Your task to perform on an android device: uninstall "Nova Launcher" Image 0: 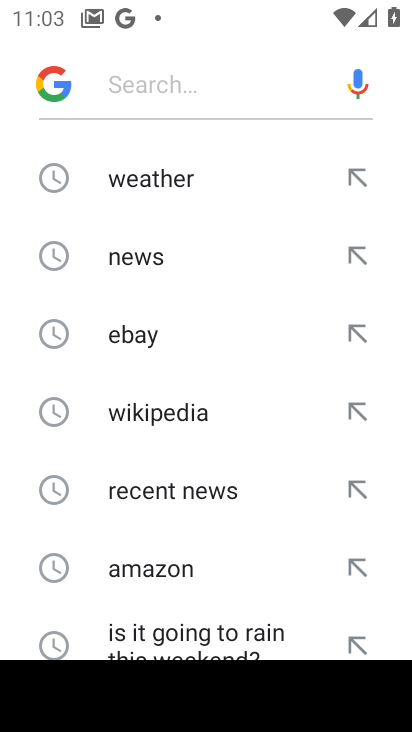
Step 0: press back button
Your task to perform on an android device: uninstall "Nova Launcher" Image 1: 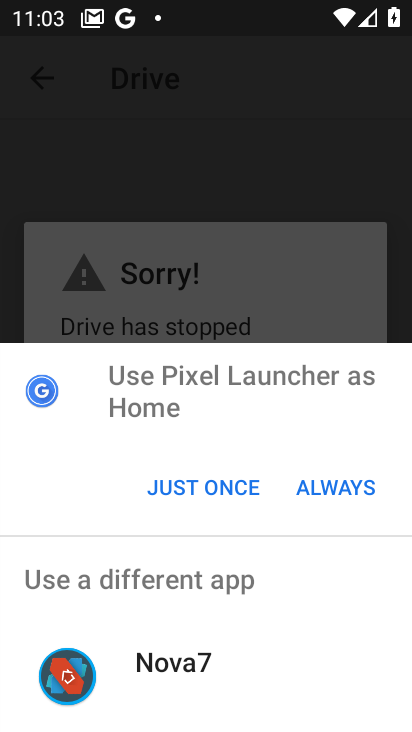
Step 1: click (243, 499)
Your task to perform on an android device: uninstall "Nova Launcher" Image 2: 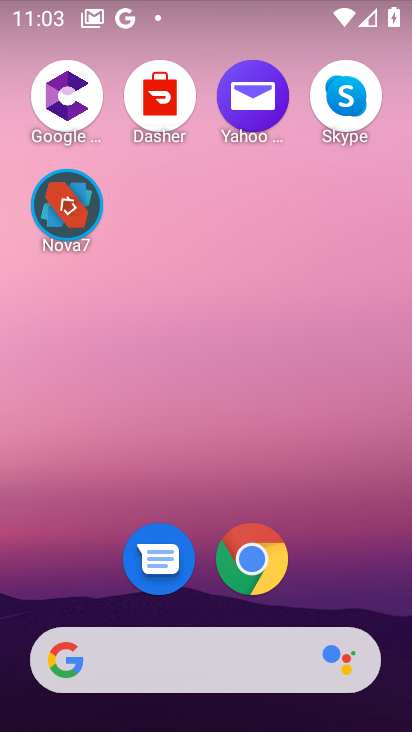
Step 2: click (71, 213)
Your task to perform on an android device: uninstall "Nova Launcher" Image 3: 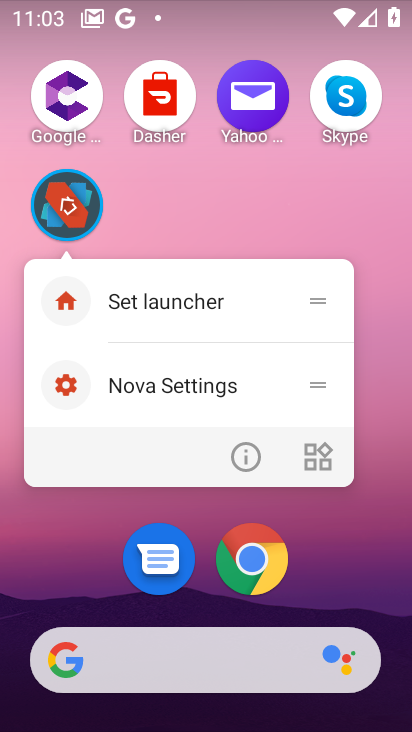
Step 3: click (250, 455)
Your task to perform on an android device: uninstall "Nova Launcher" Image 4: 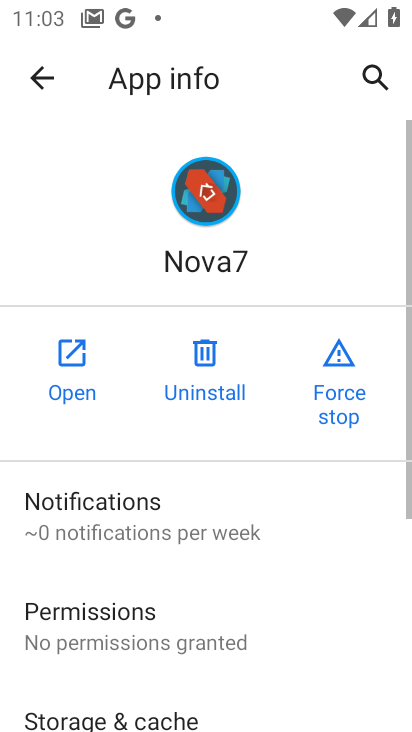
Step 4: click (194, 354)
Your task to perform on an android device: uninstall "Nova Launcher" Image 5: 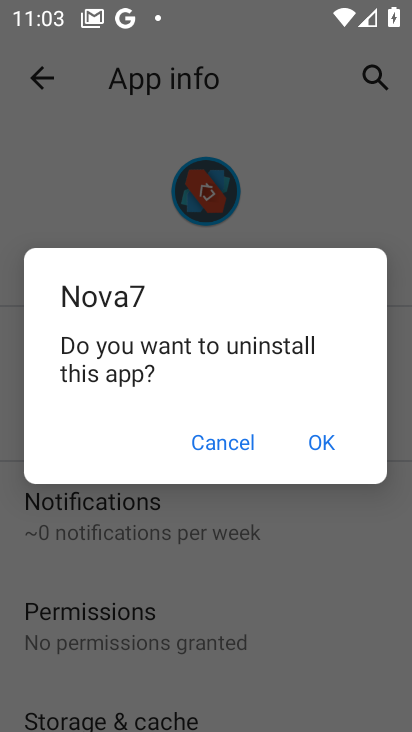
Step 5: click (317, 437)
Your task to perform on an android device: uninstall "Nova Launcher" Image 6: 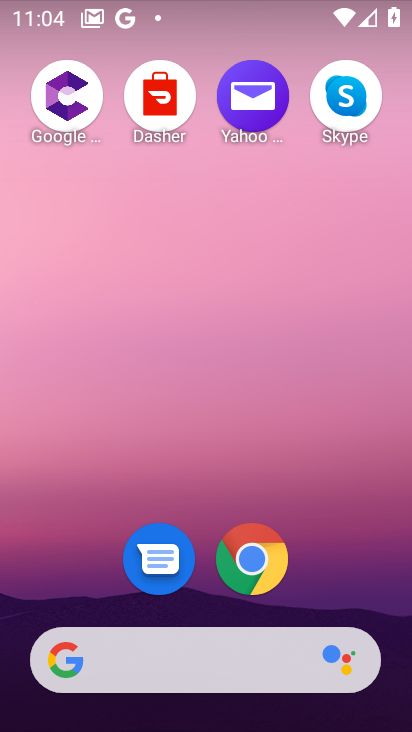
Step 6: task complete